Your task to perform on an android device: Is it going to rain this weekend? Image 0: 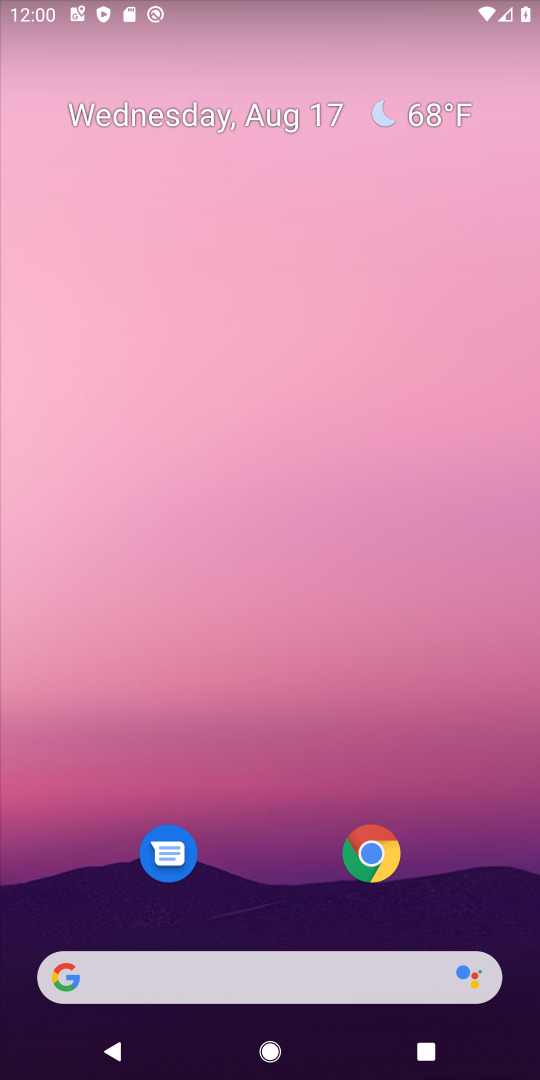
Step 0: drag from (237, 870) to (237, 378)
Your task to perform on an android device: Is it going to rain this weekend? Image 1: 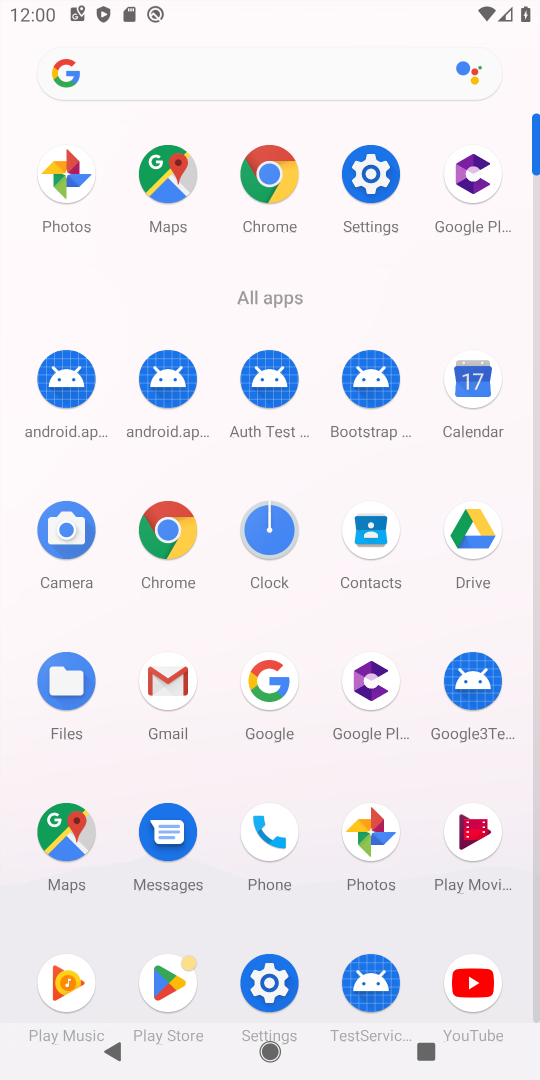
Step 1: click (251, 678)
Your task to perform on an android device: Is it going to rain this weekend? Image 2: 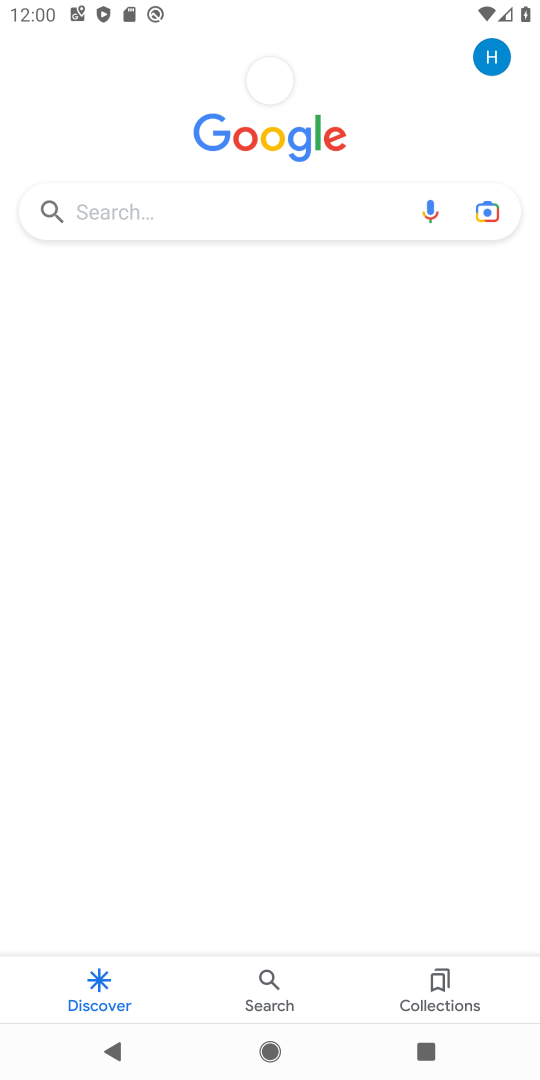
Step 2: click (203, 210)
Your task to perform on an android device: Is it going to rain this weekend? Image 3: 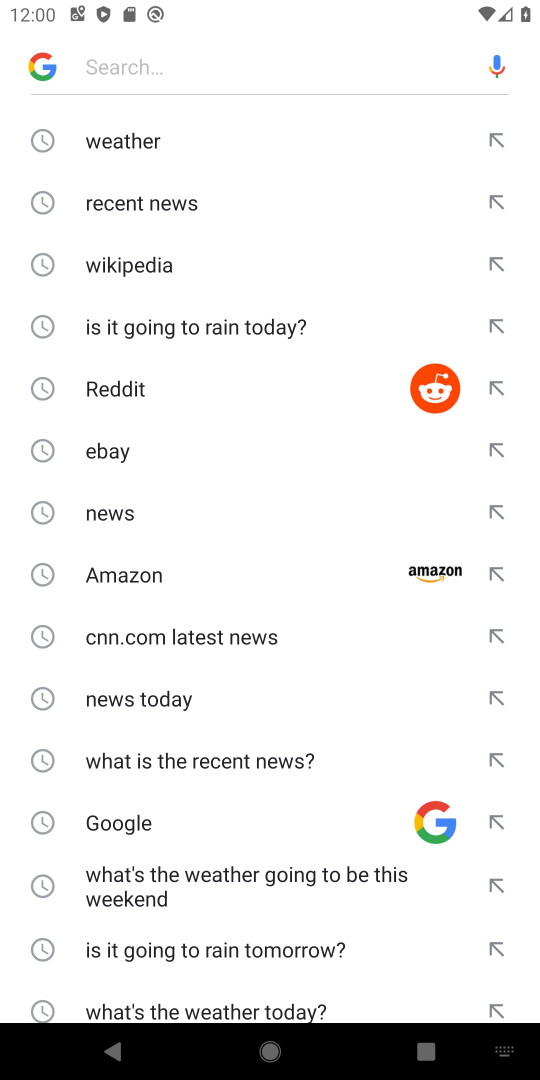
Step 3: drag from (191, 882) to (176, 348)
Your task to perform on an android device: Is it going to rain this weekend? Image 4: 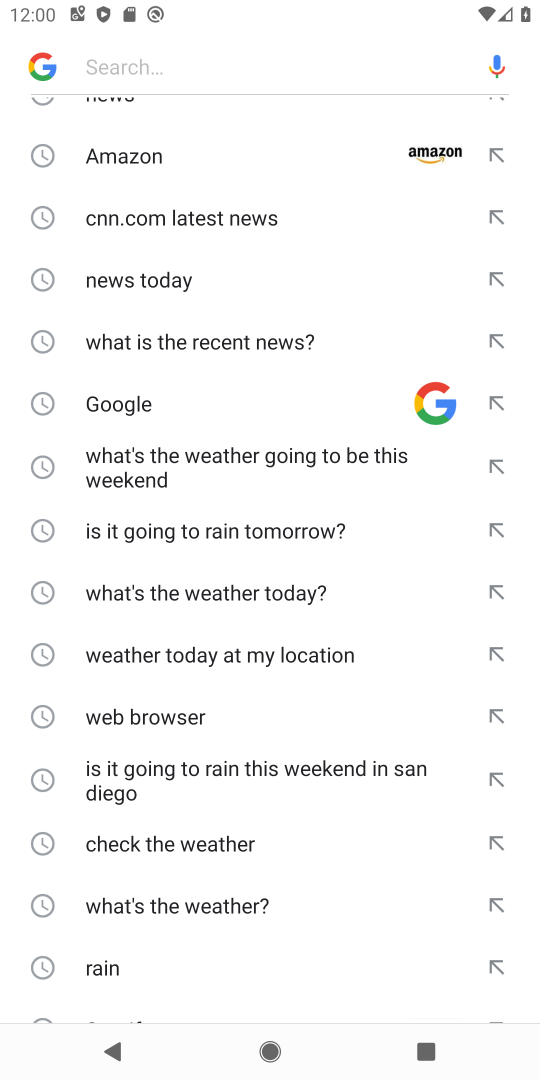
Step 4: click (193, 761)
Your task to perform on an android device: Is it going to rain this weekend? Image 5: 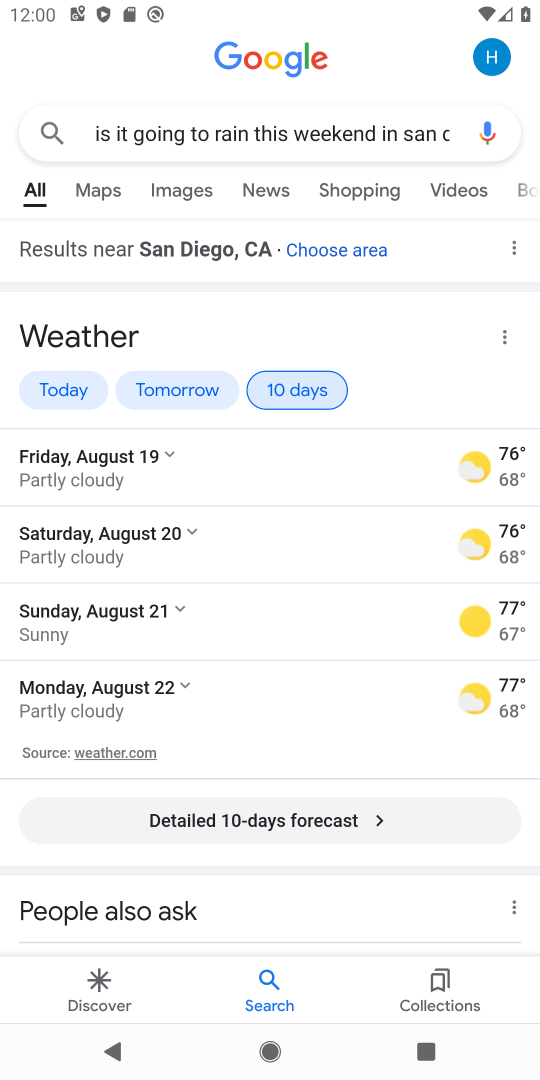
Step 5: click (318, 823)
Your task to perform on an android device: Is it going to rain this weekend? Image 6: 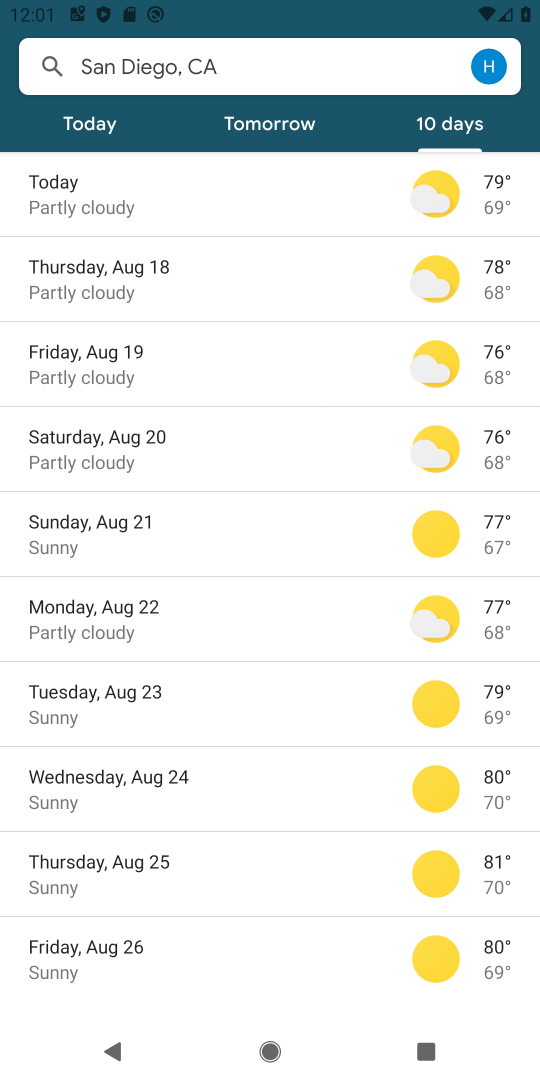
Step 6: task complete